Your task to perform on an android device: Go to Maps Image 0: 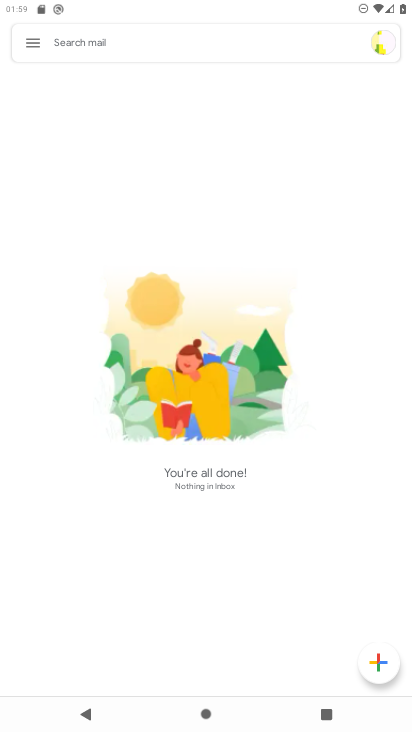
Step 0: press home button
Your task to perform on an android device: Go to Maps Image 1: 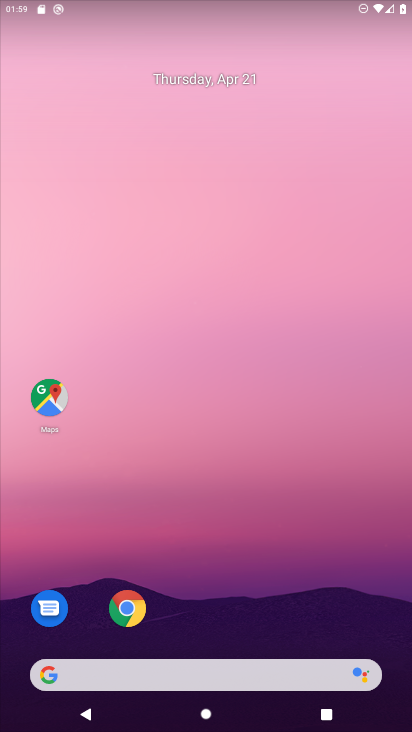
Step 1: drag from (231, 484) to (255, 234)
Your task to perform on an android device: Go to Maps Image 2: 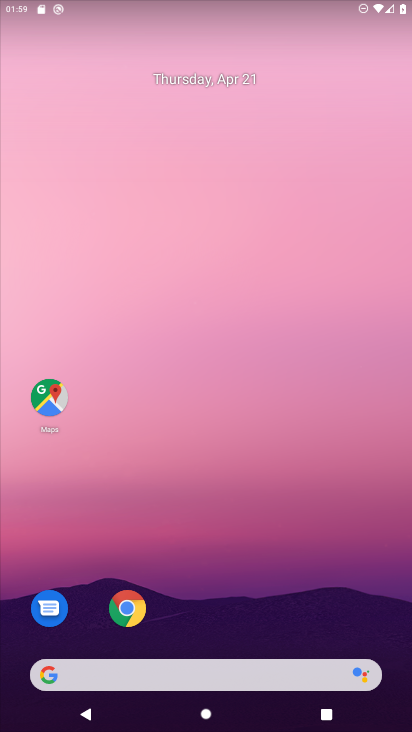
Step 2: drag from (247, 619) to (248, 165)
Your task to perform on an android device: Go to Maps Image 3: 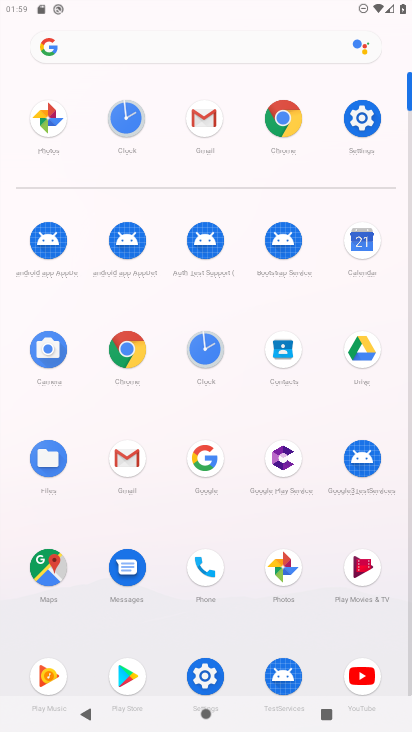
Step 3: click (205, 449)
Your task to perform on an android device: Go to Maps Image 4: 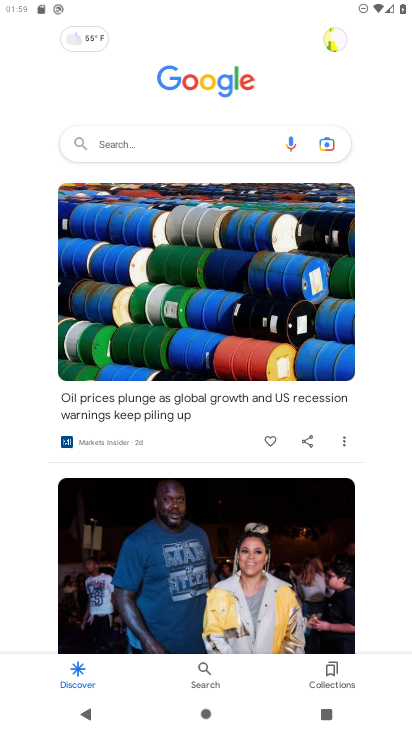
Step 4: press home button
Your task to perform on an android device: Go to Maps Image 5: 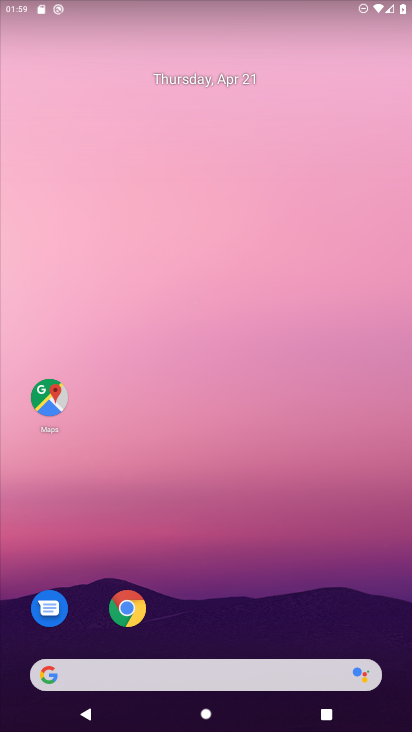
Step 5: drag from (155, 662) to (202, 149)
Your task to perform on an android device: Go to Maps Image 6: 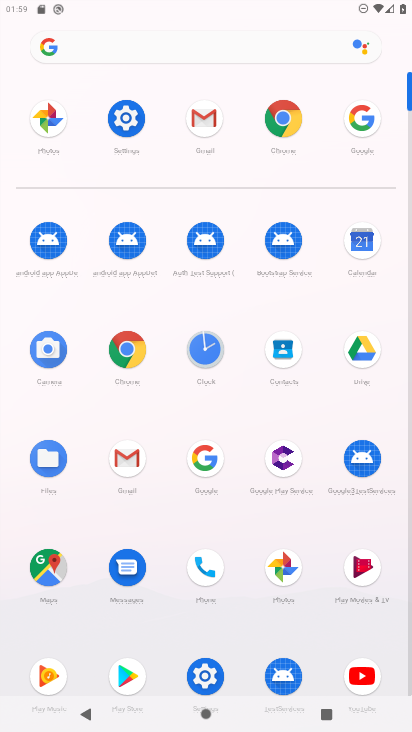
Step 6: click (43, 560)
Your task to perform on an android device: Go to Maps Image 7: 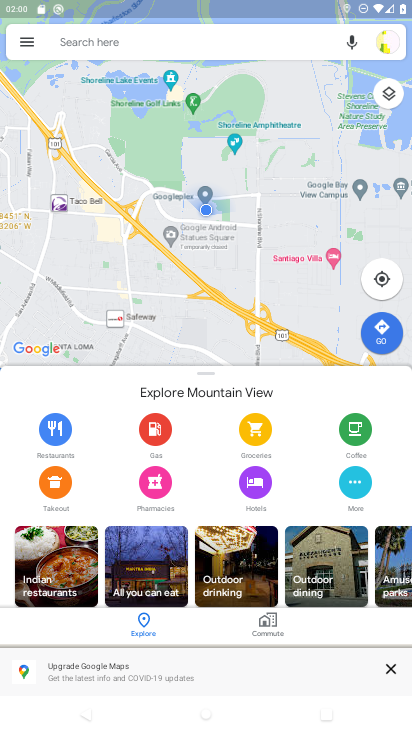
Step 7: task complete